Your task to perform on an android device: Open Android settings Image 0: 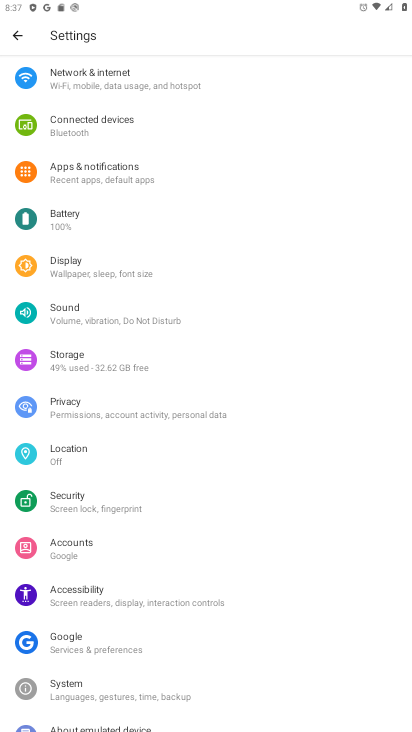
Step 0: drag from (111, 604) to (158, 173)
Your task to perform on an android device: Open Android settings Image 1: 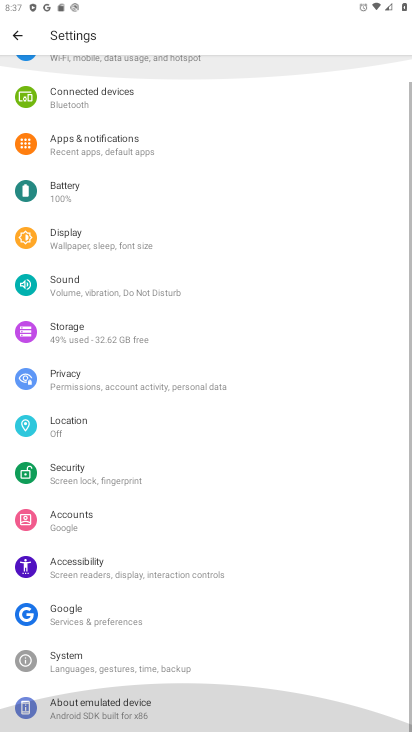
Step 1: drag from (182, 465) to (162, 142)
Your task to perform on an android device: Open Android settings Image 2: 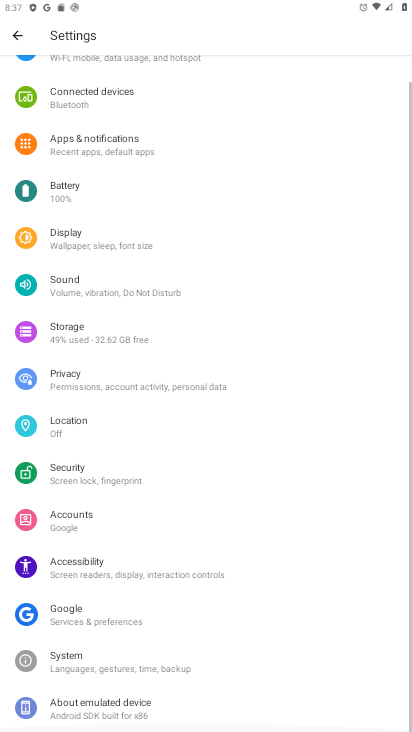
Step 2: click (99, 702)
Your task to perform on an android device: Open Android settings Image 3: 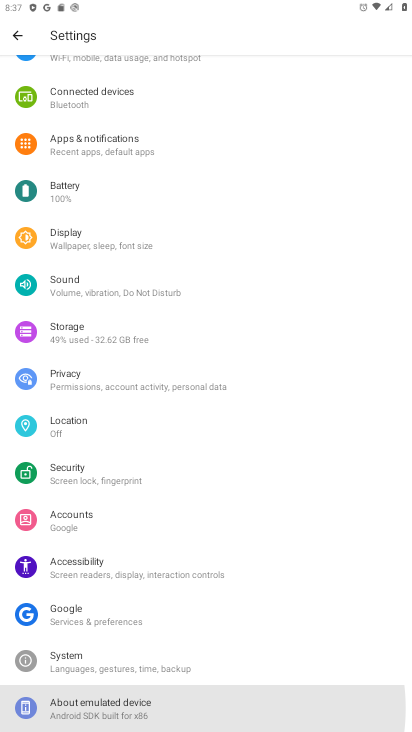
Step 3: click (99, 702)
Your task to perform on an android device: Open Android settings Image 4: 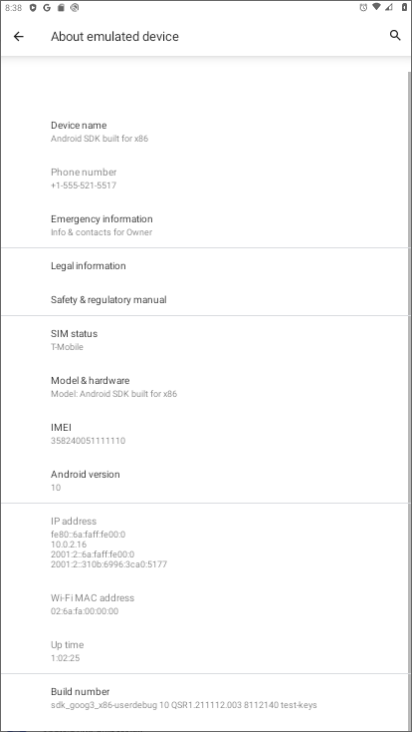
Step 4: click (102, 706)
Your task to perform on an android device: Open Android settings Image 5: 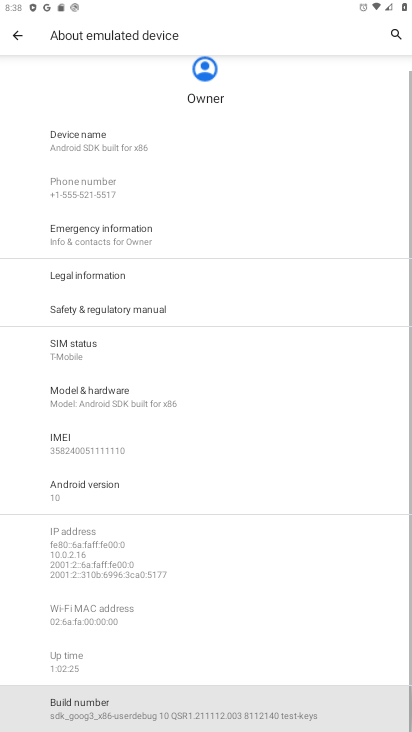
Step 5: click (109, 704)
Your task to perform on an android device: Open Android settings Image 6: 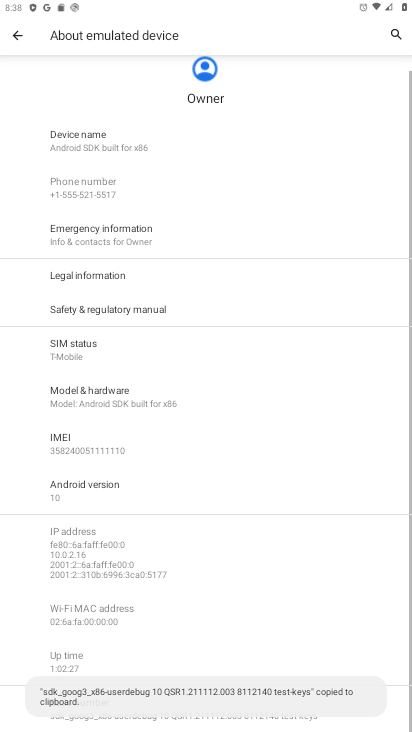
Step 6: task complete